Your task to perform on an android device: toggle improve location accuracy Image 0: 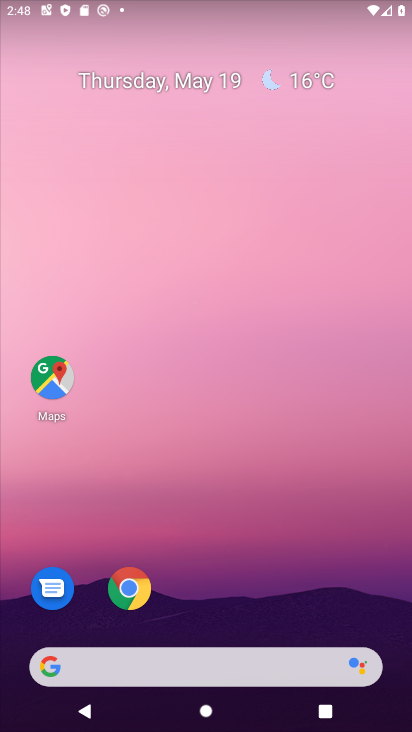
Step 0: drag from (263, 616) to (266, 161)
Your task to perform on an android device: toggle improve location accuracy Image 1: 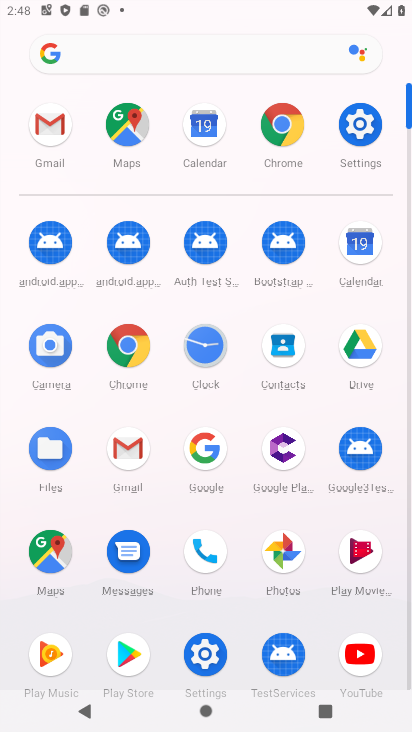
Step 1: click (372, 127)
Your task to perform on an android device: toggle improve location accuracy Image 2: 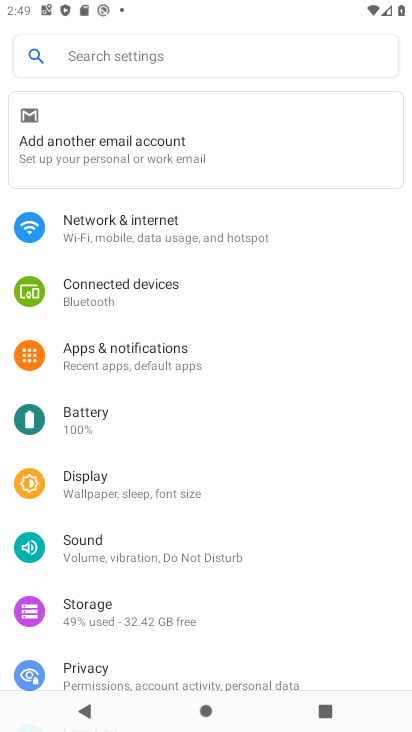
Step 2: drag from (168, 602) to (248, 217)
Your task to perform on an android device: toggle improve location accuracy Image 3: 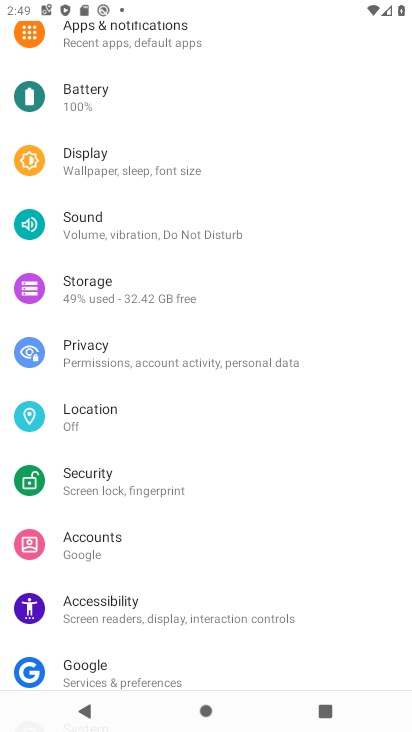
Step 3: click (90, 418)
Your task to perform on an android device: toggle improve location accuracy Image 4: 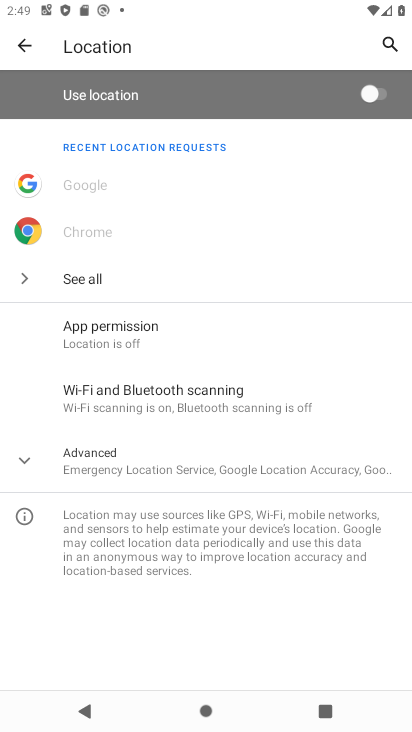
Step 4: click (178, 472)
Your task to perform on an android device: toggle improve location accuracy Image 5: 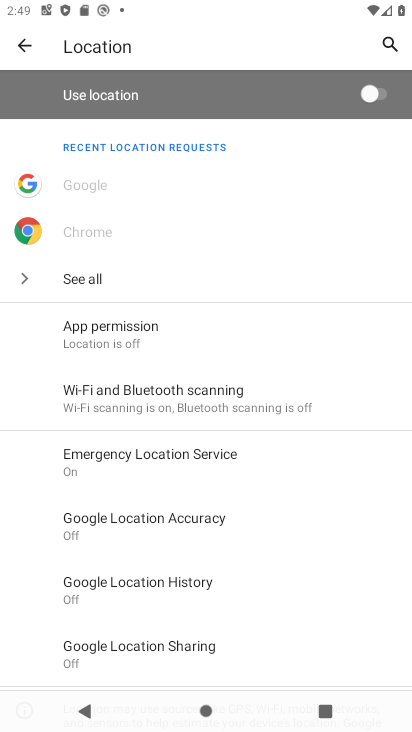
Step 5: click (184, 509)
Your task to perform on an android device: toggle improve location accuracy Image 6: 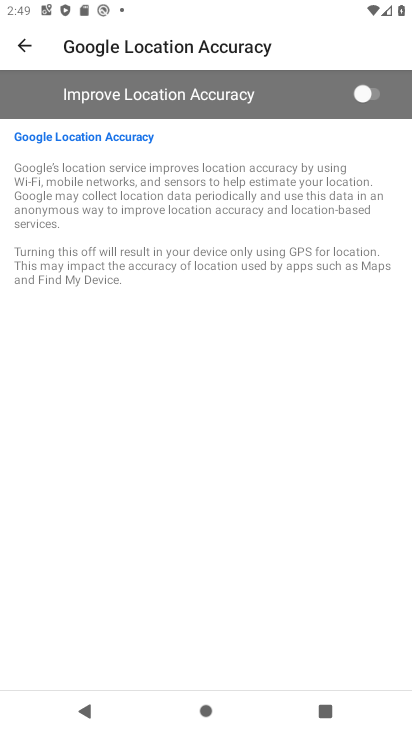
Step 6: click (337, 95)
Your task to perform on an android device: toggle improve location accuracy Image 7: 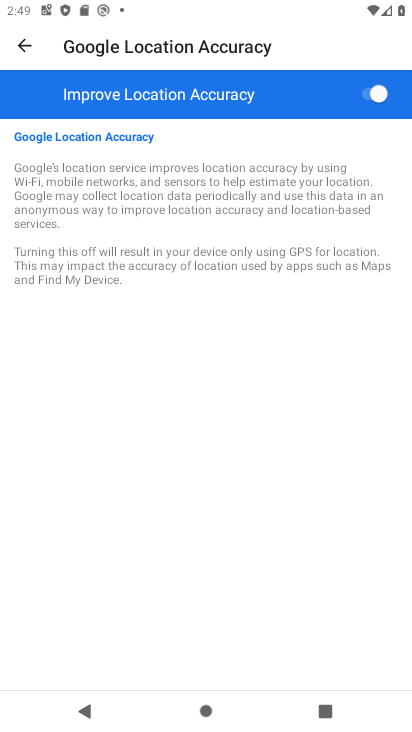
Step 7: task complete